Your task to perform on an android device: Open Google Chrome Image 0: 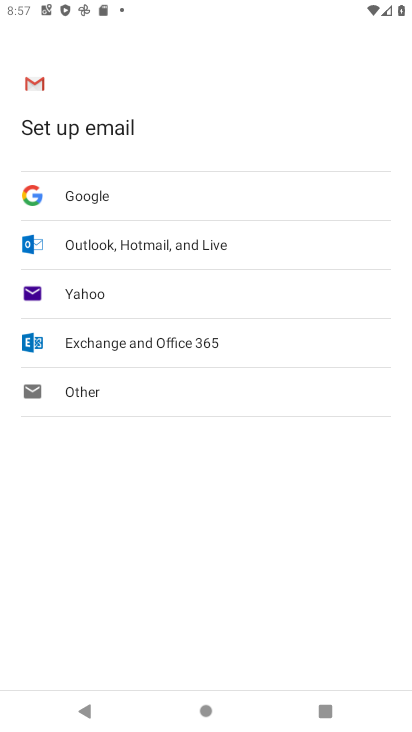
Step 0: press home button
Your task to perform on an android device: Open Google Chrome Image 1: 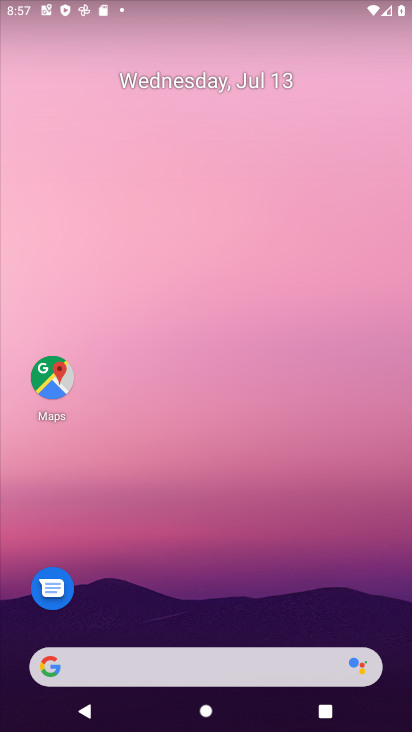
Step 1: drag from (113, 678) to (78, 117)
Your task to perform on an android device: Open Google Chrome Image 2: 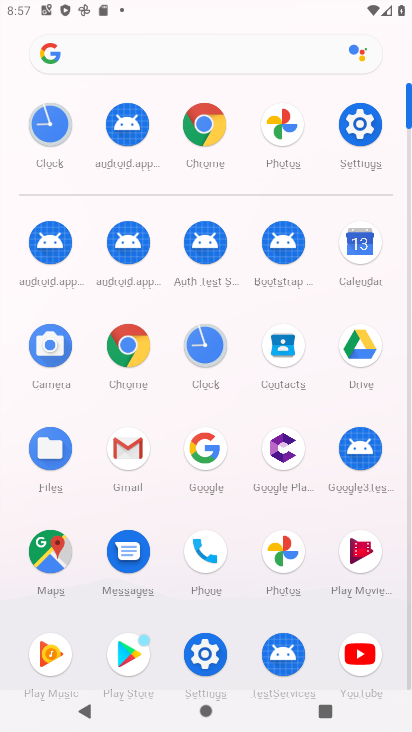
Step 2: click (194, 107)
Your task to perform on an android device: Open Google Chrome Image 3: 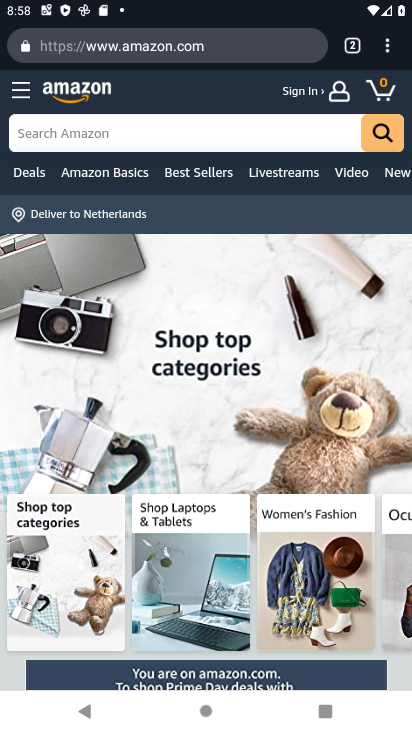
Step 3: task complete